Your task to perform on an android device: delete the emails in spam in the gmail app Image 0: 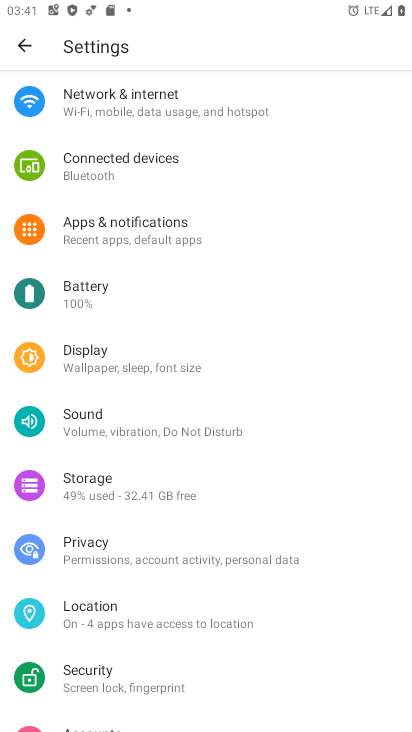
Step 0: press back button
Your task to perform on an android device: delete the emails in spam in the gmail app Image 1: 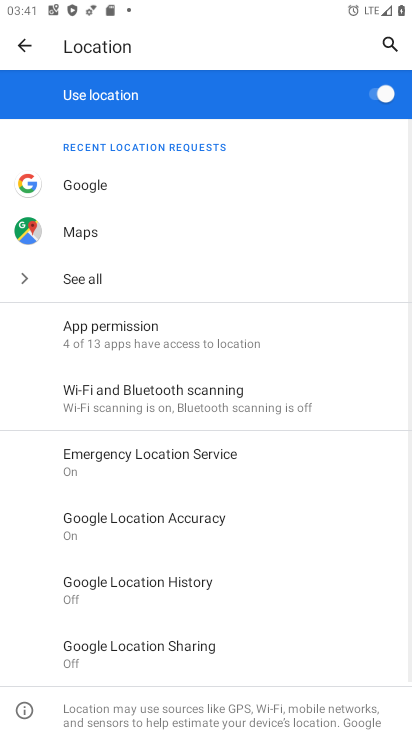
Step 1: press home button
Your task to perform on an android device: delete the emails in spam in the gmail app Image 2: 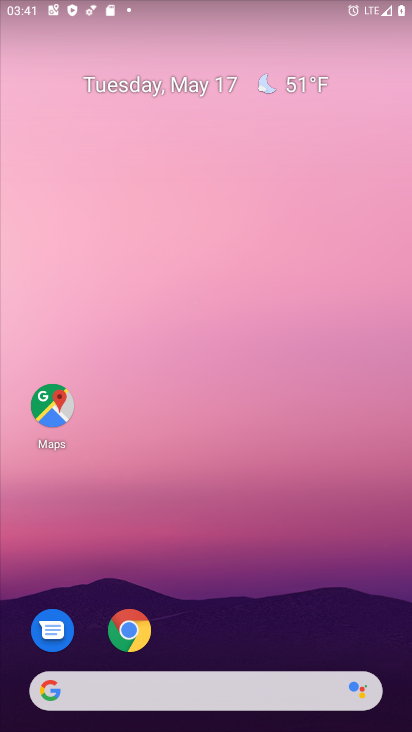
Step 2: drag from (241, 556) to (243, 110)
Your task to perform on an android device: delete the emails in spam in the gmail app Image 3: 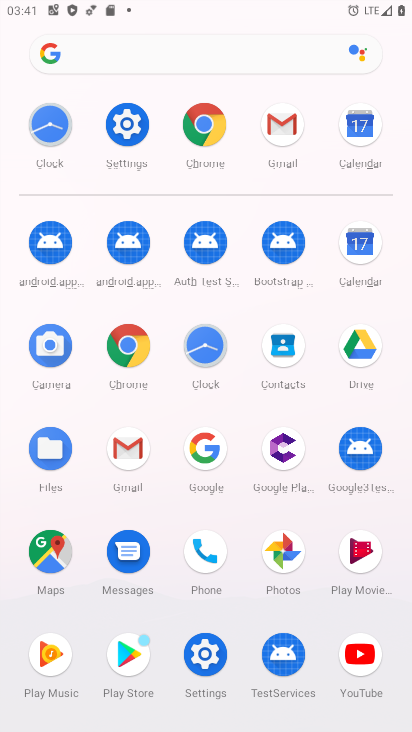
Step 3: click (273, 133)
Your task to perform on an android device: delete the emails in spam in the gmail app Image 4: 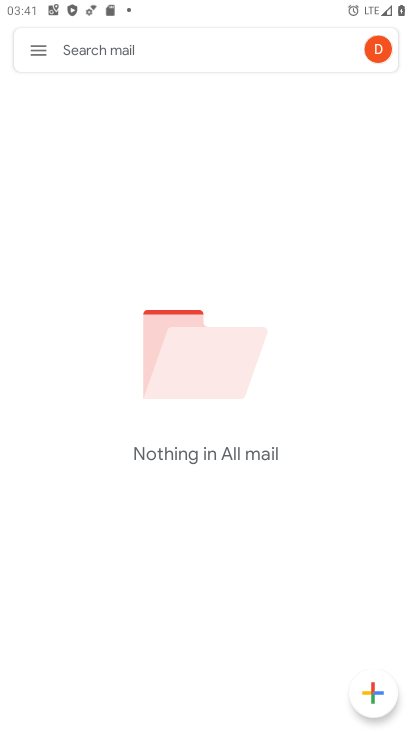
Step 4: click (34, 51)
Your task to perform on an android device: delete the emails in spam in the gmail app Image 5: 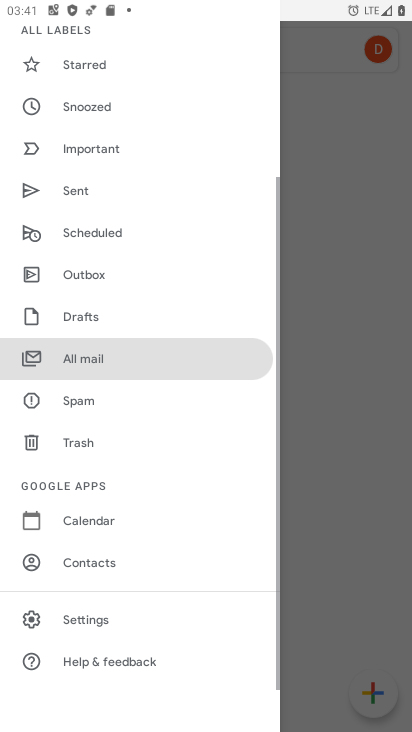
Step 5: click (70, 414)
Your task to perform on an android device: delete the emails in spam in the gmail app Image 6: 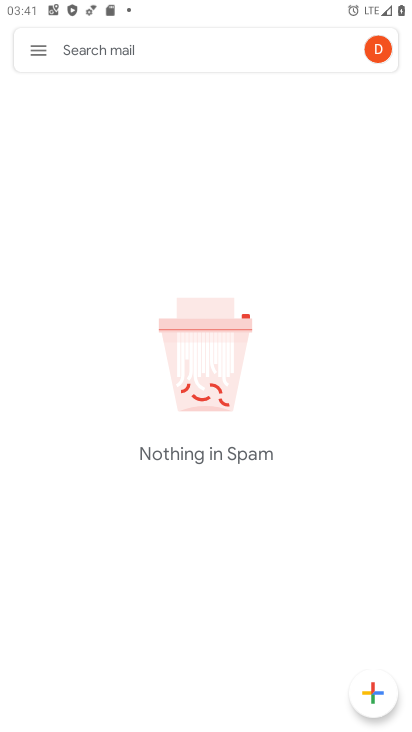
Step 6: task complete